Your task to perform on an android device: toggle show notifications on the lock screen Image 0: 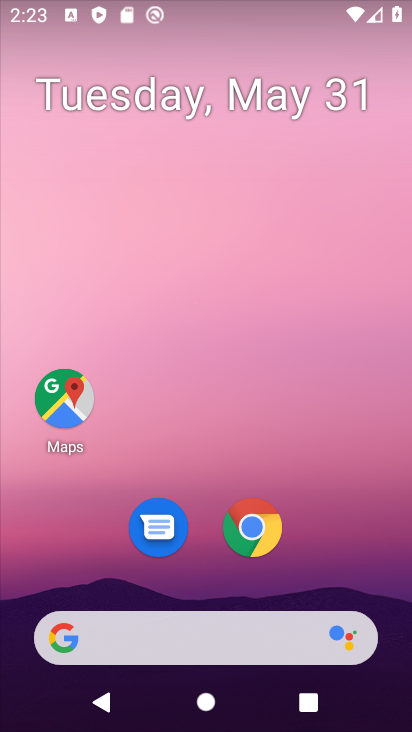
Step 0: drag from (401, 631) to (327, 87)
Your task to perform on an android device: toggle show notifications on the lock screen Image 1: 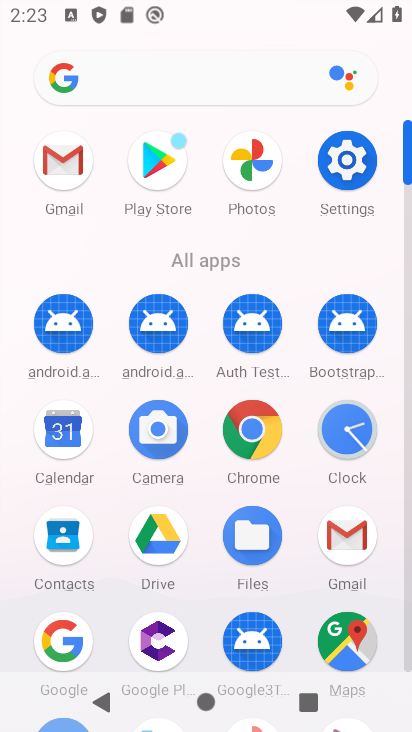
Step 1: click (407, 562)
Your task to perform on an android device: toggle show notifications on the lock screen Image 2: 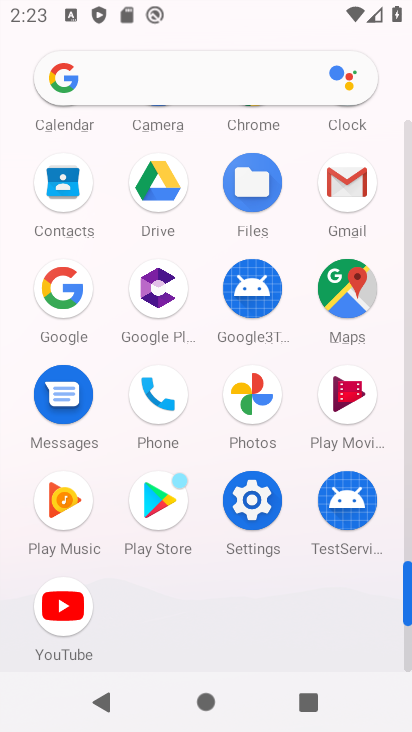
Step 2: click (254, 500)
Your task to perform on an android device: toggle show notifications on the lock screen Image 3: 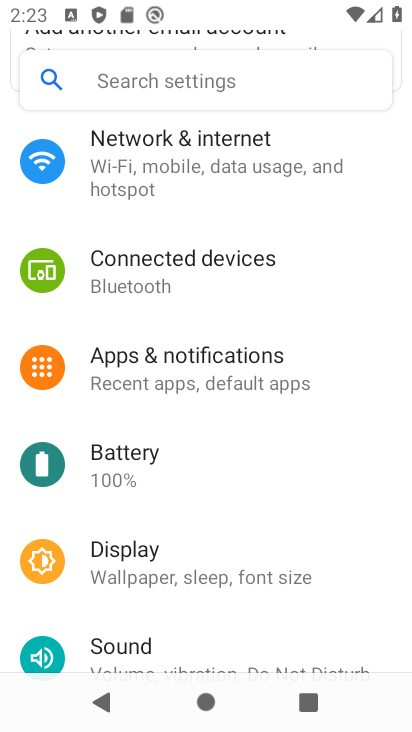
Step 3: click (158, 360)
Your task to perform on an android device: toggle show notifications on the lock screen Image 4: 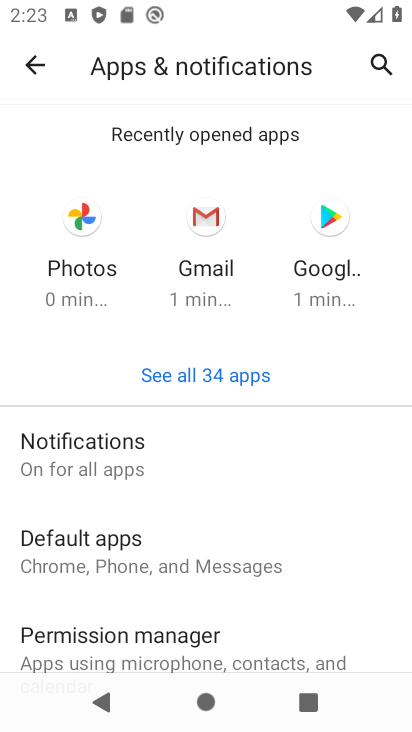
Step 4: click (88, 456)
Your task to perform on an android device: toggle show notifications on the lock screen Image 5: 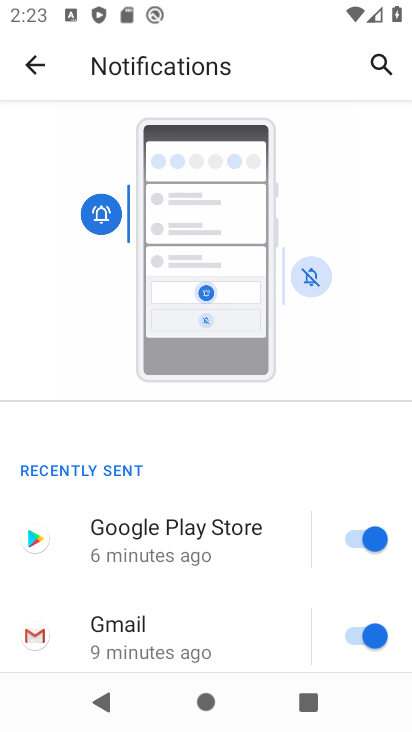
Step 5: drag from (300, 631) to (263, 90)
Your task to perform on an android device: toggle show notifications on the lock screen Image 6: 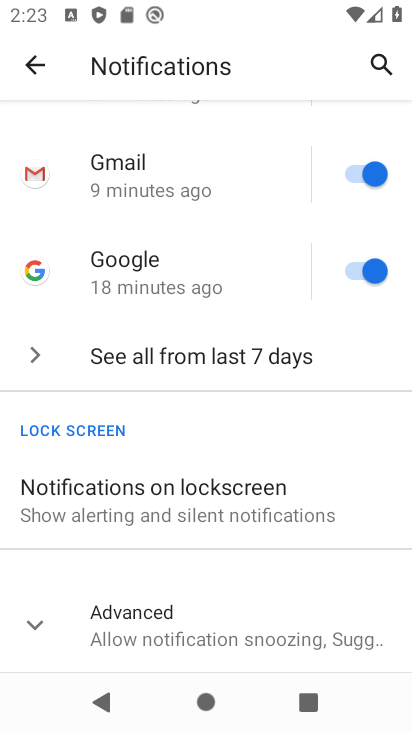
Step 6: click (140, 505)
Your task to perform on an android device: toggle show notifications on the lock screen Image 7: 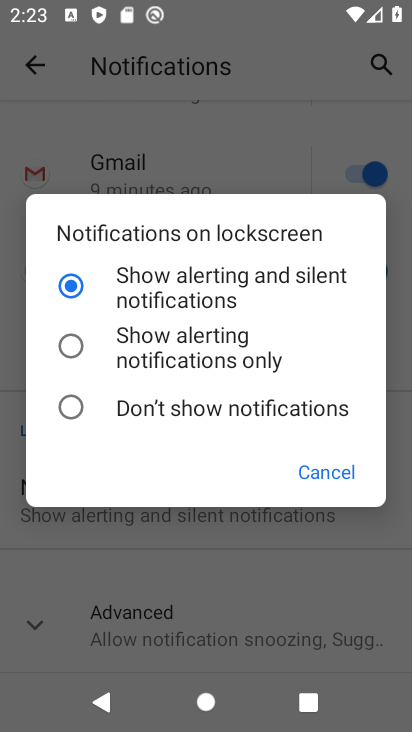
Step 7: click (72, 347)
Your task to perform on an android device: toggle show notifications on the lock screen Image 8: 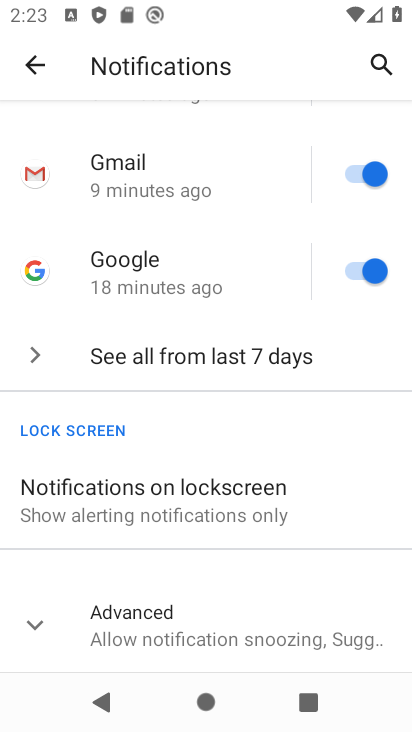
Step 8: task complete